Your task to perform on an android device: Open Youtube and go to the subscriptions tab Image 0: 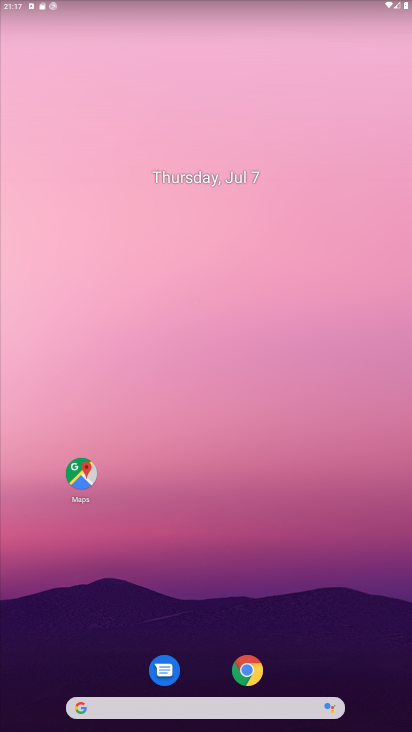
Step 0: task impossible